Your task to perform on an android device: Open maps Image 0: 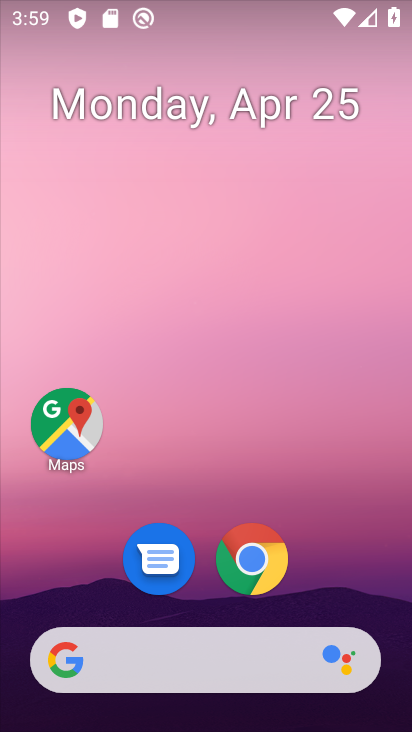
Step 0: click (65, 429)
Your task to perform on an android device: Open maps Image 1: 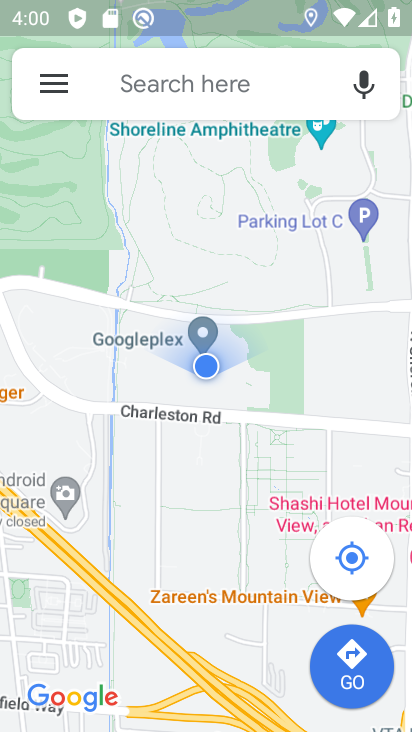
Step 1: task complete